Your task to perform on an android device: Turn off the flashlight Image 0: 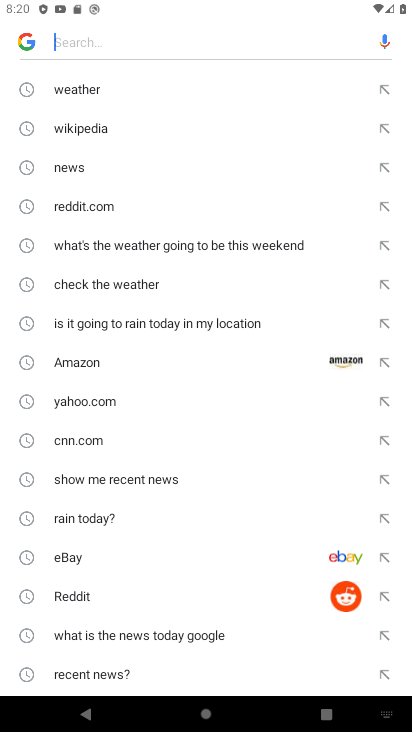
Step 0: press home button
Your task to perform on an android device: Turn off the flashlight Image 1: 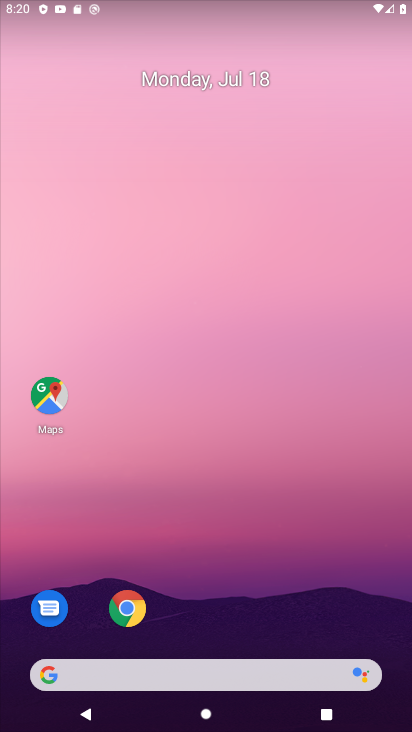
Step 1: drag from (226, 626) to (272, 146)
Your task to perform on an android device: Turn off the flashlight Image 2: 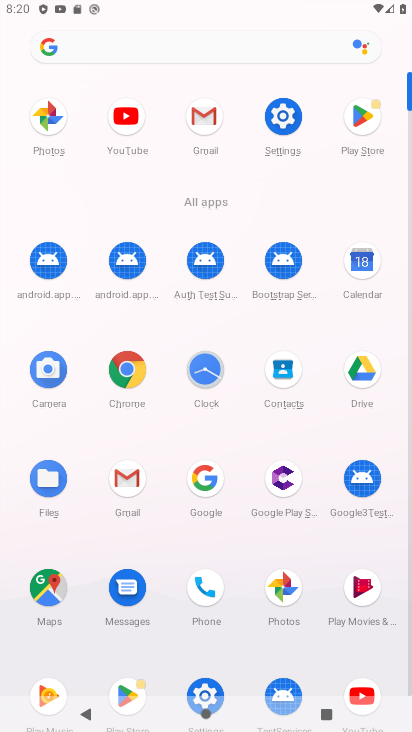
Step 2: click (287, 120)
Your task to perform on an android device: Turn off the flashlight Image 3: 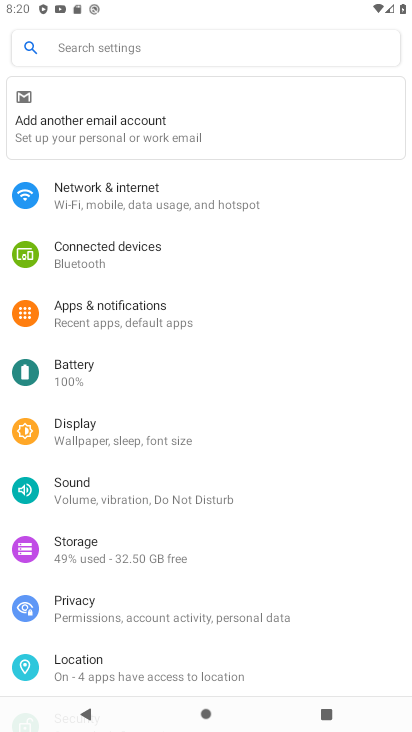
Step 3: task complete